Your task to perform on an android device: Go to Android settings Image 0: 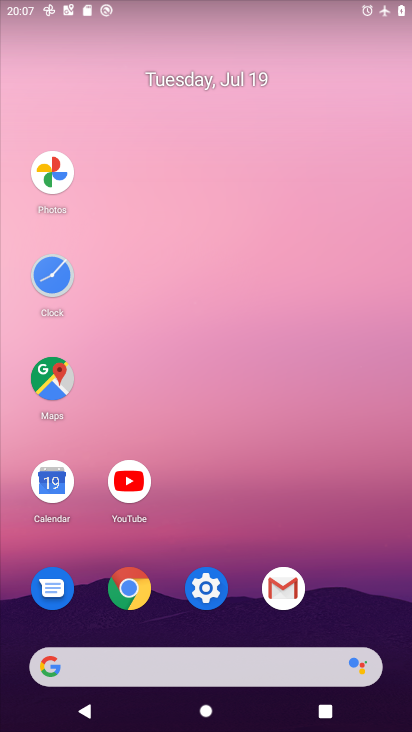
Step 0: click (208, 595)
Your task to perform on an android device: Go to Android settings Image 1: 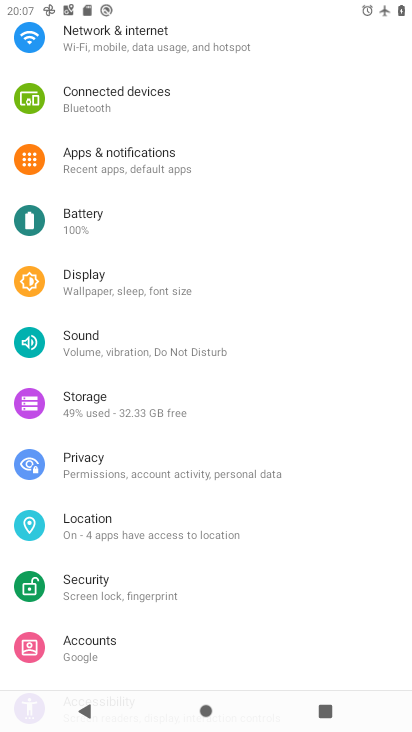
Step 1: task complete